Your task to perform on an android device: Clear all items from cart on amazon.com. Search for "jbl charge 4" on amazon.com, select the first entry, add it to the cart, then select checkout. Image 0: 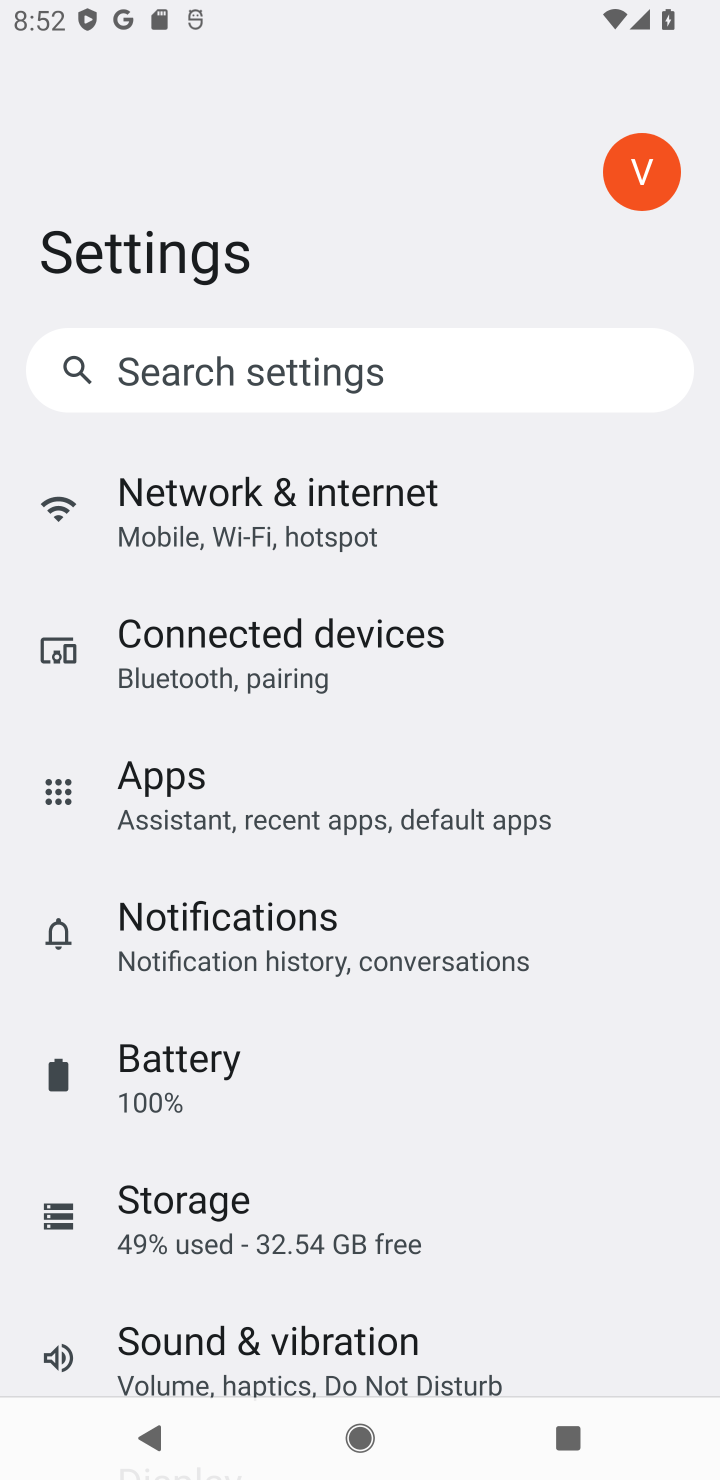
Step 0: press home button
Your task to perform on an android device: Clear all items from cart on amazon.com. Search for "jbl charge 4" on amazon.com, select the first entry, add it to the cart, then select checkout. Image 1: 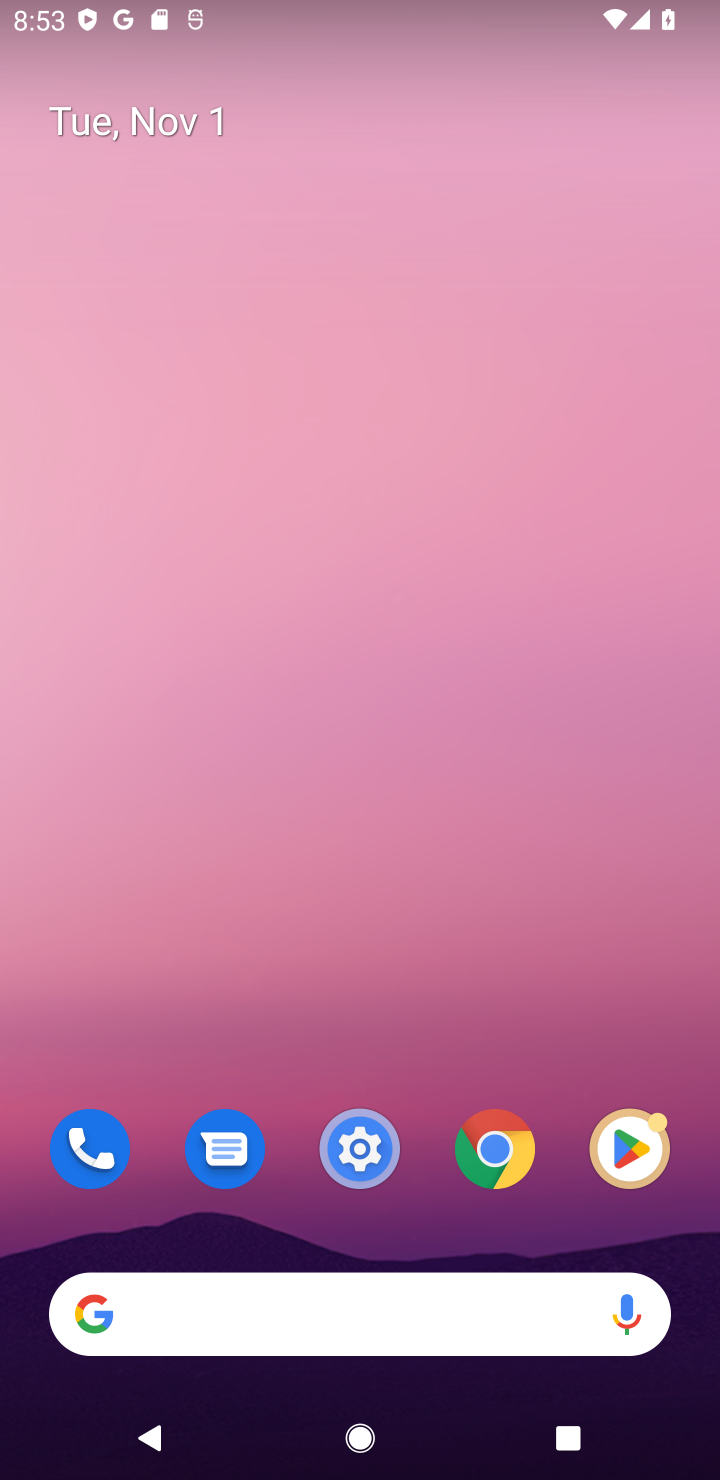
Step 1: click (139, 1310)
Your task to perform on an android device: Clear all items from cart on amazon.com. Search for "jbl charge 4" on amazon.com, select the first entry, add it to the cart, then select checkout. Image 2: 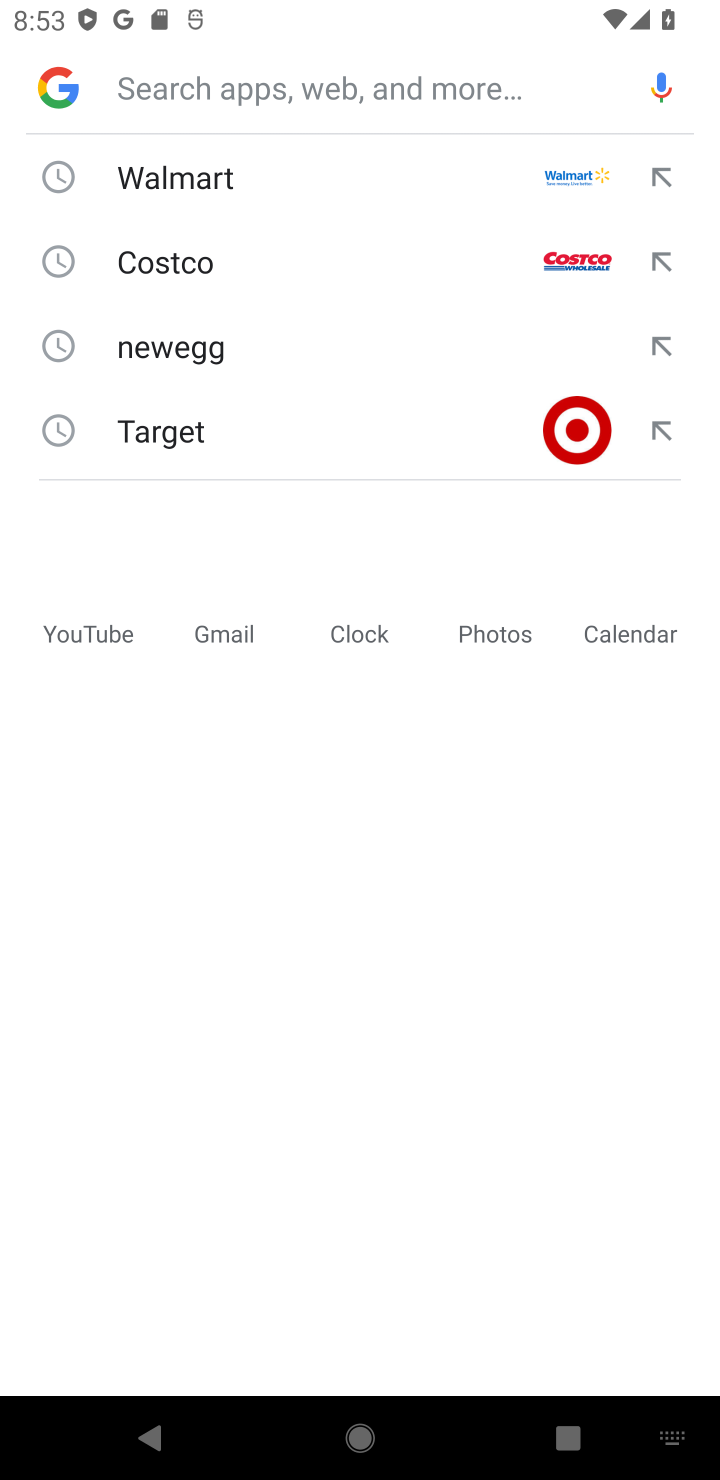
Step 2: type "amazon.com"
Your task to perform on an android device: Clear all items from cart on amazon.com. Search for "jbl charge 4" on amazon.com, select the first entry, add it to the cart, then select checkout. Image 3: 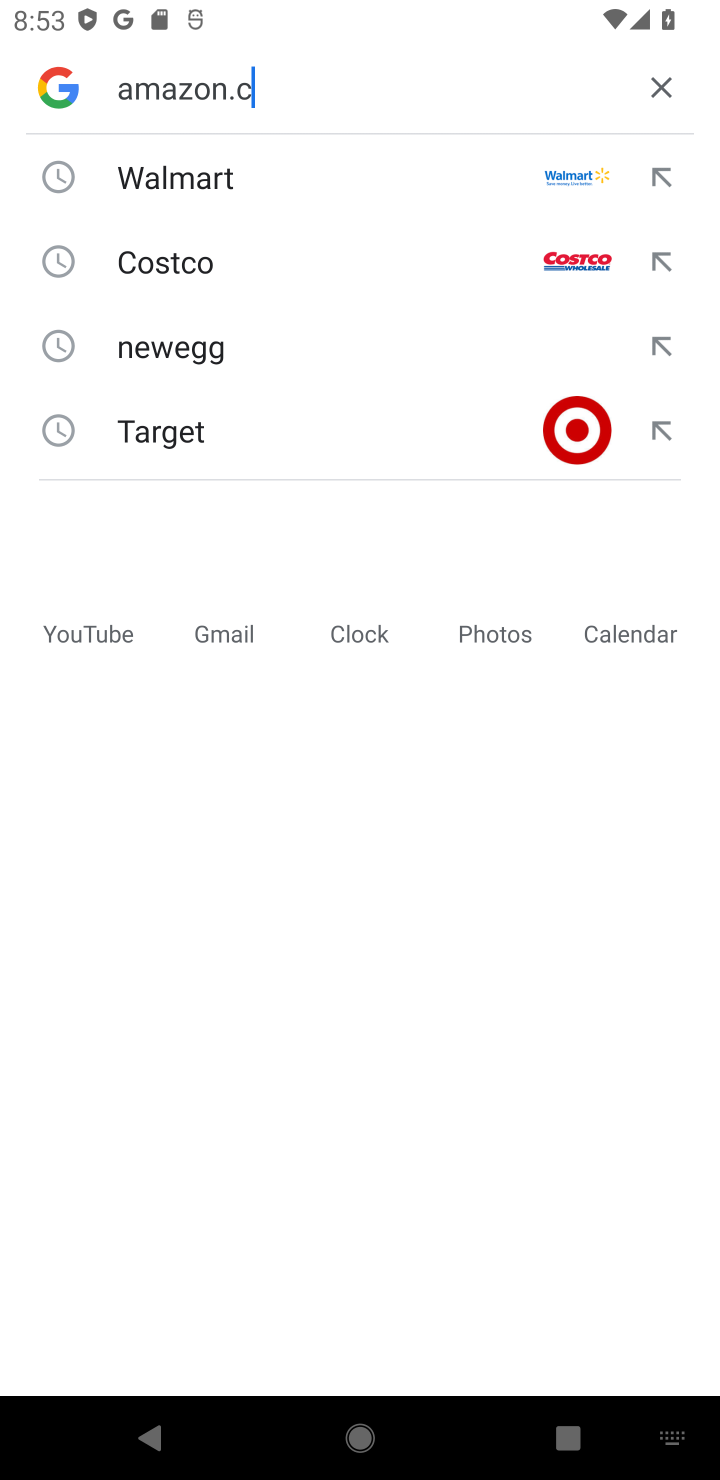
Step 3: press enter
Your task to perform on an android device: Clear all items from cart on amazon.com. Search for "jbl charge 4" on amazon.com, select the first entry, add it to the cart, then select checkout. Image 4: 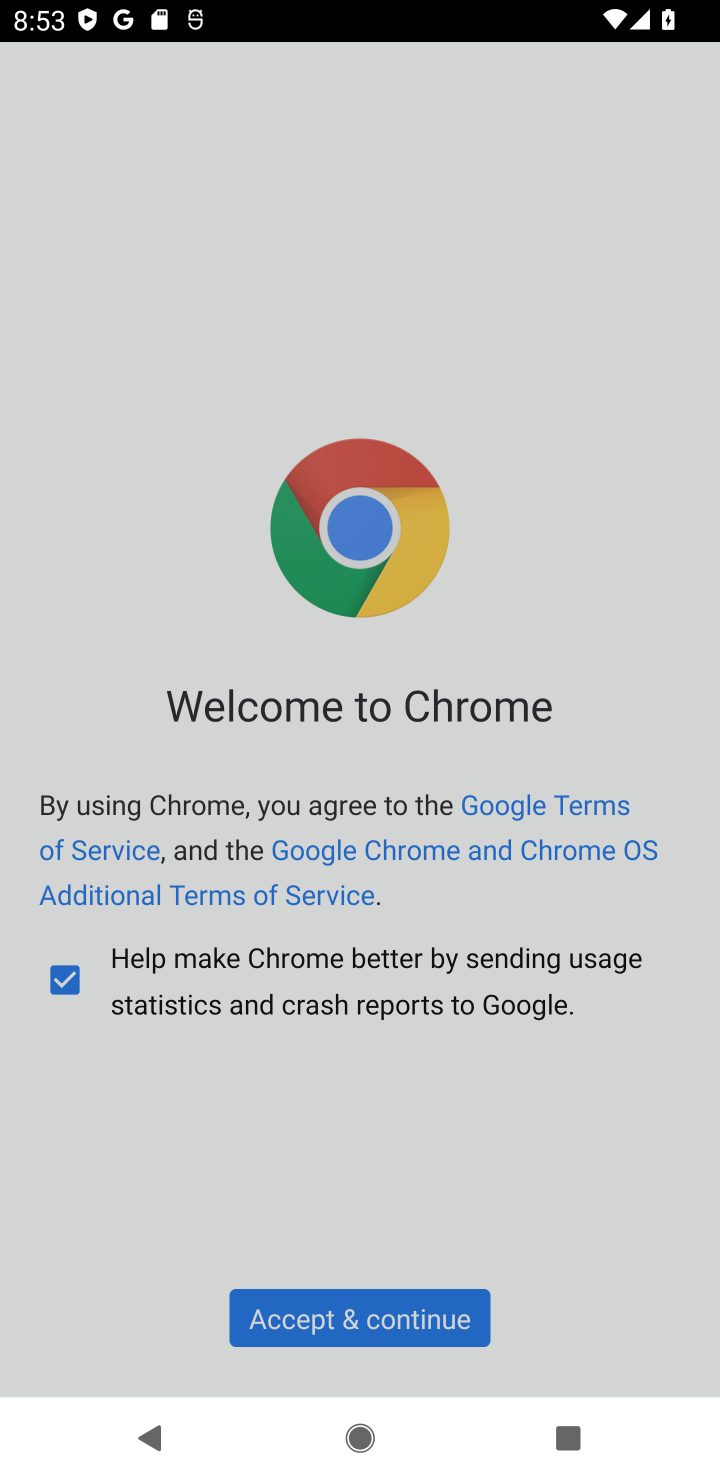
Step 4: click (287, 1321)
Your task to perform on an android device: Clear all items from cart on amazon.com. Search for "jbl charge 4" on amazon.com, select the first entry, add it to the cart, then select checkout. Image 5: 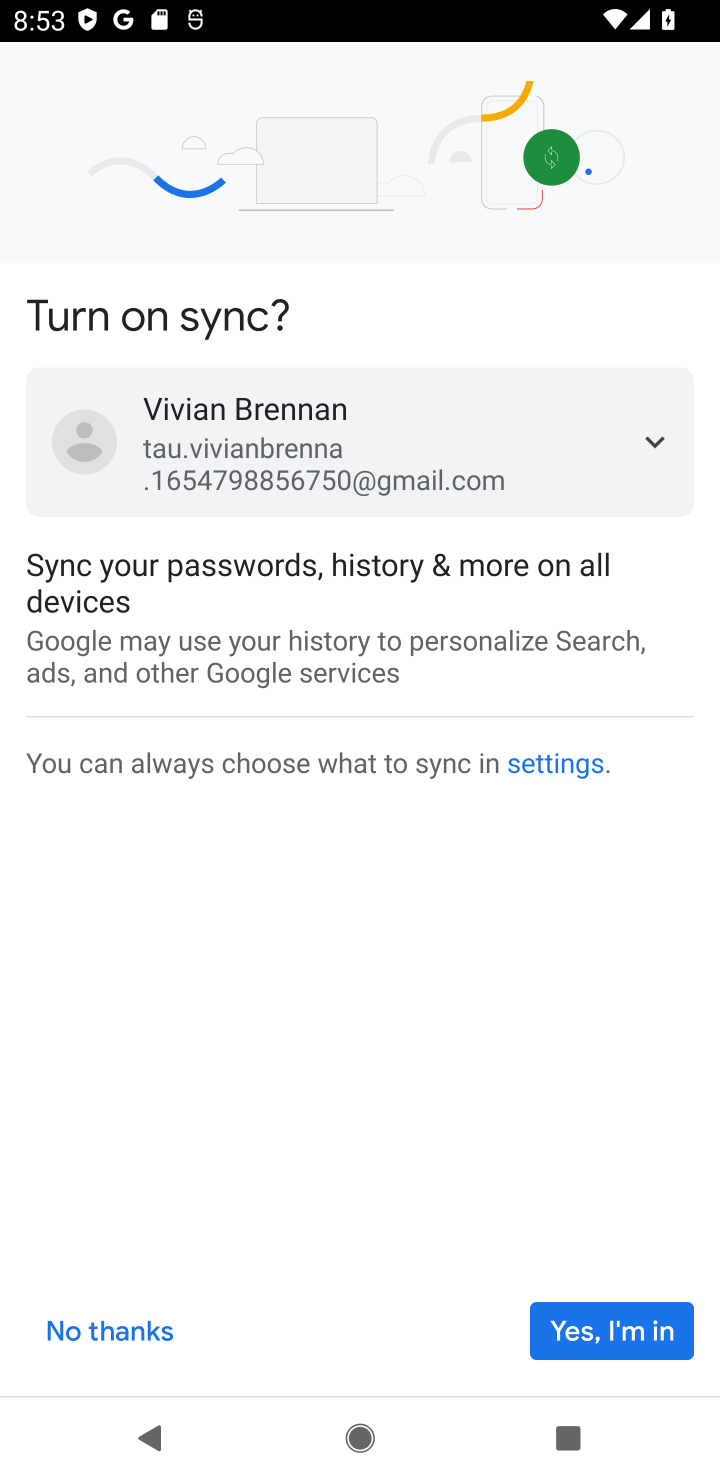
Step 5: click (597, 1330)
Your task to perform on an android device: Clear all items from cart on amazon.com. Search for "jbl charge 4" on amazon.com, select the first entry, add it to the cart, then select checkout. Image 6: 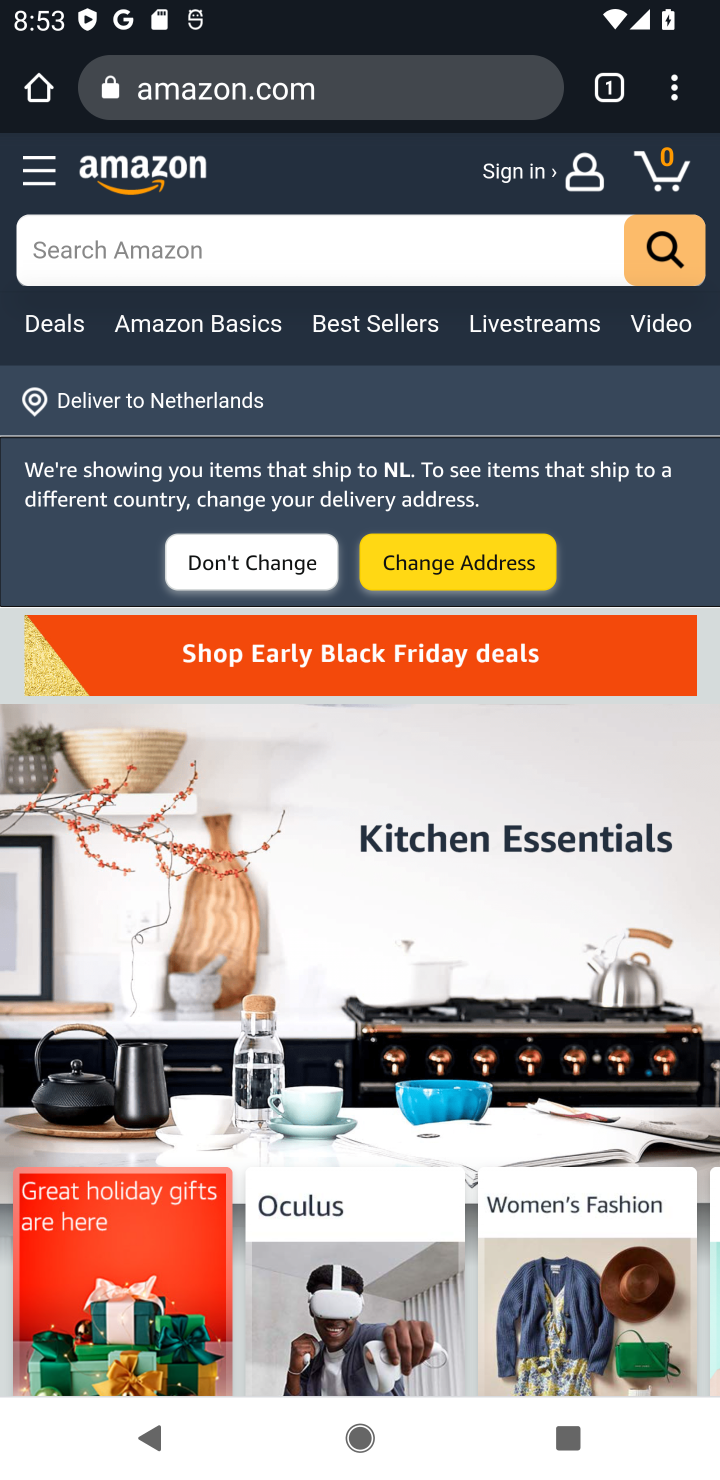
Step 6: click (670, 166)
Your task to perform on an android device: Clear all items from cart on amazon.com. Search for "jbl charge 4" on amazon.com, select the first entry, add it to the cart, then select checkout. Image 7: 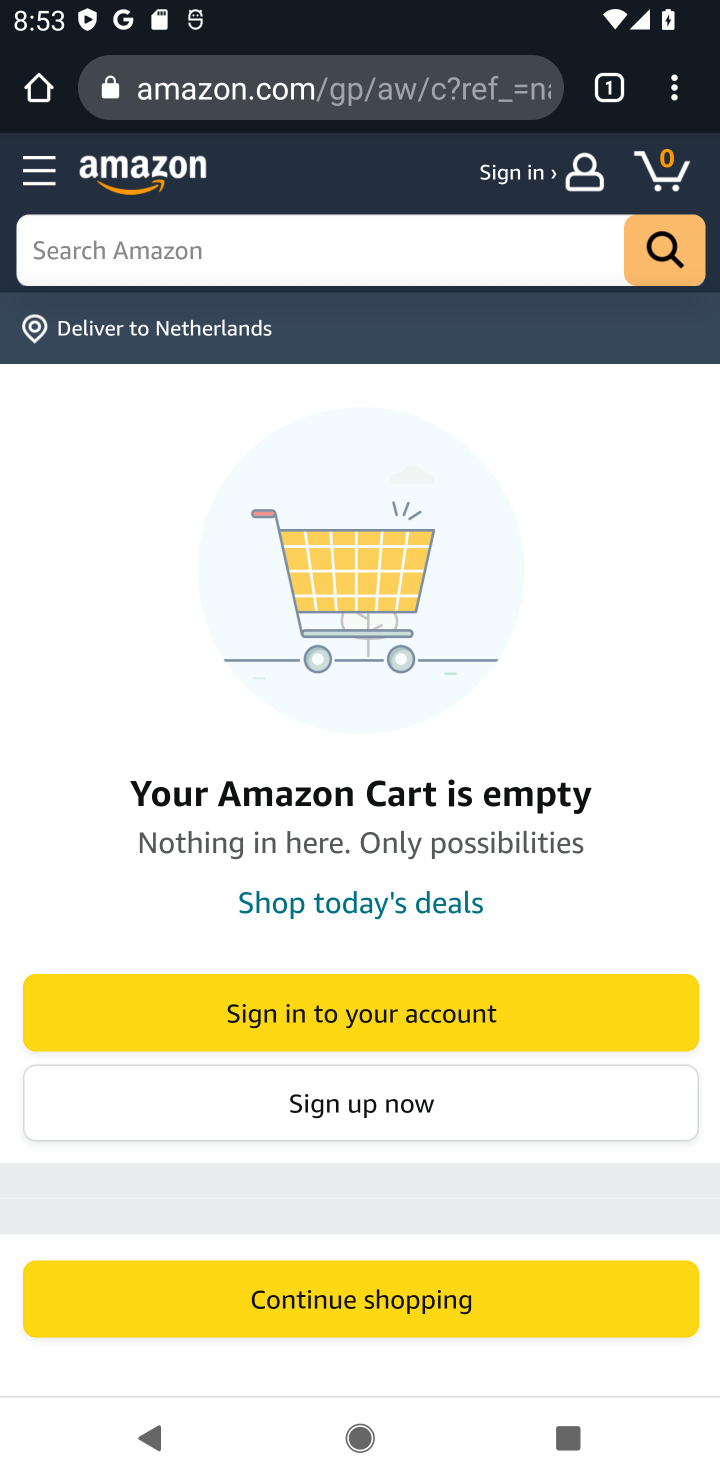
Step 7: click (292, 253)
Your task to perform on an android device: Clear all items from cart on amazon.com. Search for "jbl charge 4" on amazon.com, select the first entry, add it to the cart, then select checkout. Image 8: 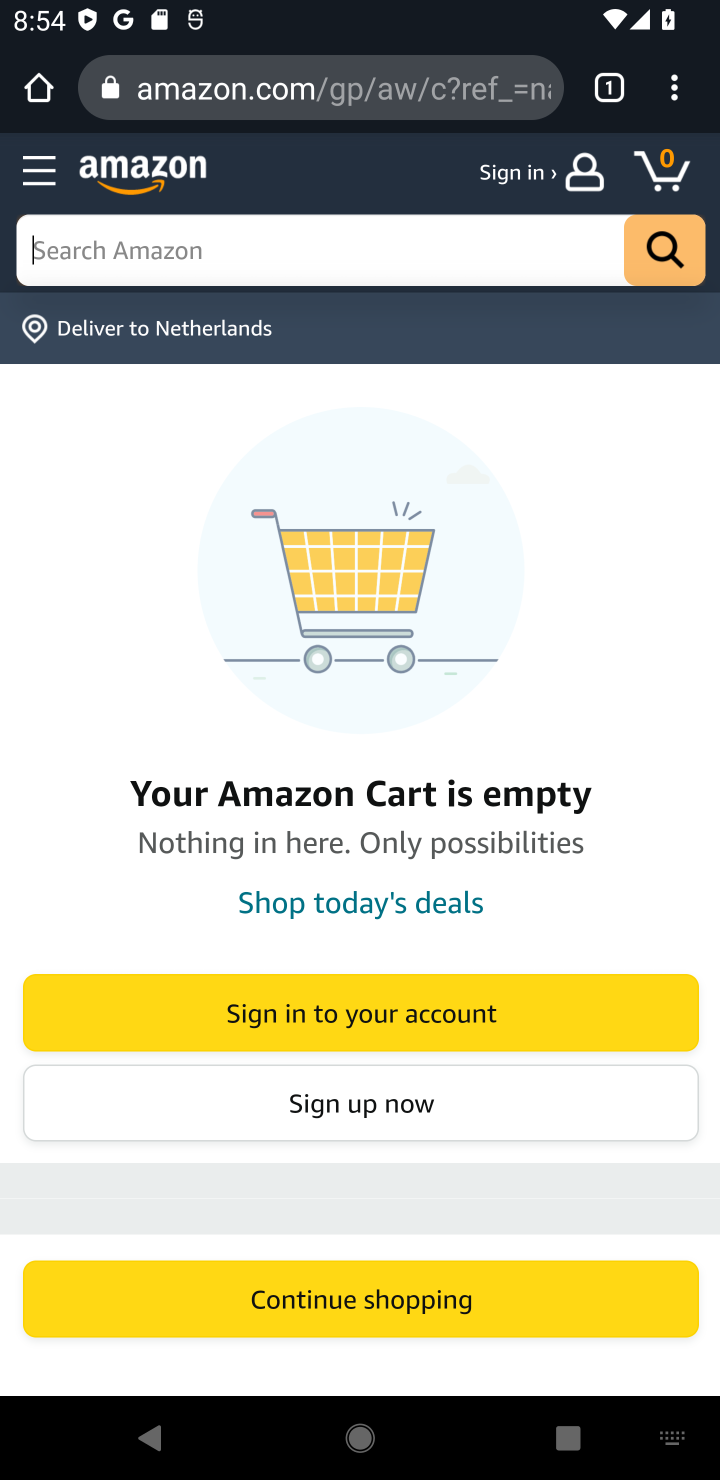
Step 8: type "jbl charge 4"
Your task to perform on an android device: Clear all items from cart on amazon.com. Search for "jbl charge 4" on amazon.com, select the first entry, add it to the cart, then select checkout. Image 9: 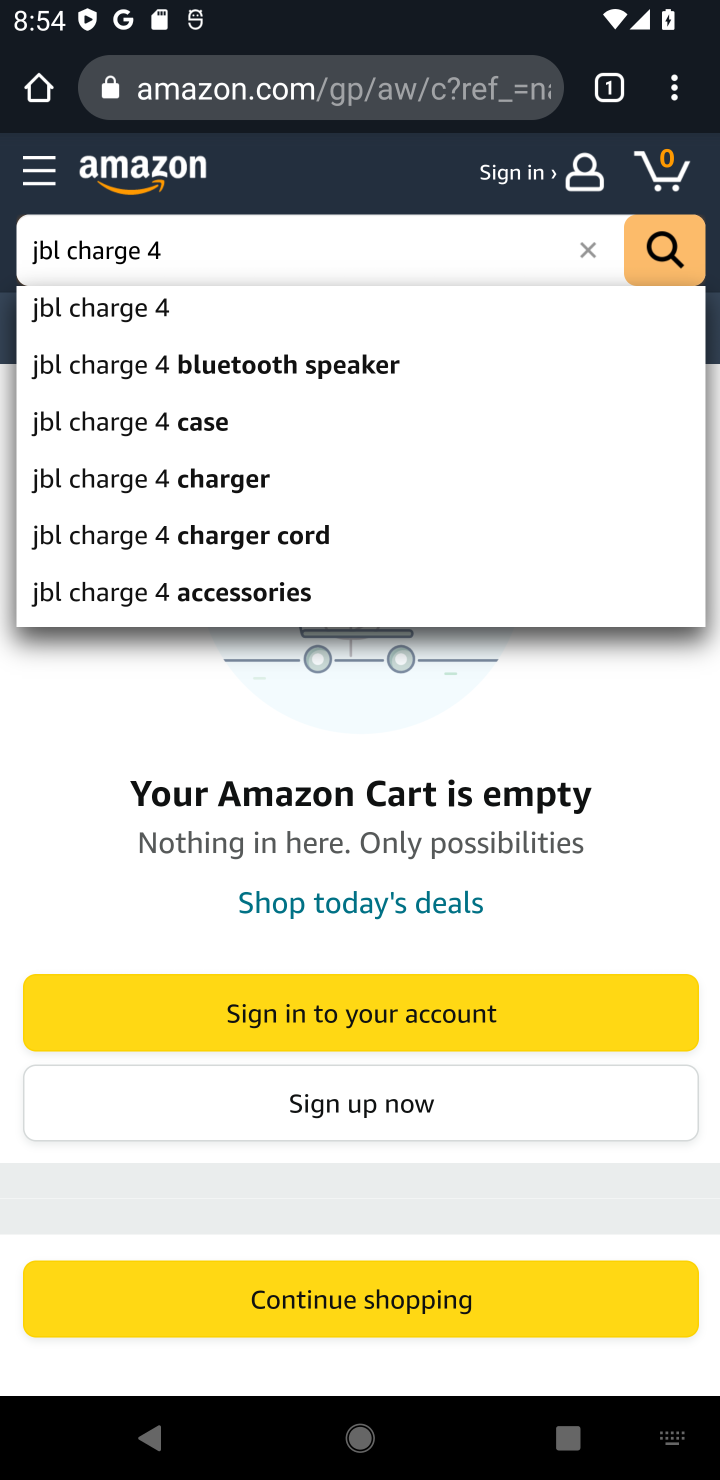
Step 9: click (657, 235)
Your task to perform on an android device: Clear all items from cart on amazon.com. Search for "jbl charge 4" on amazon.com, select the first entry, add it to the cart, then select checkout. Image 10: 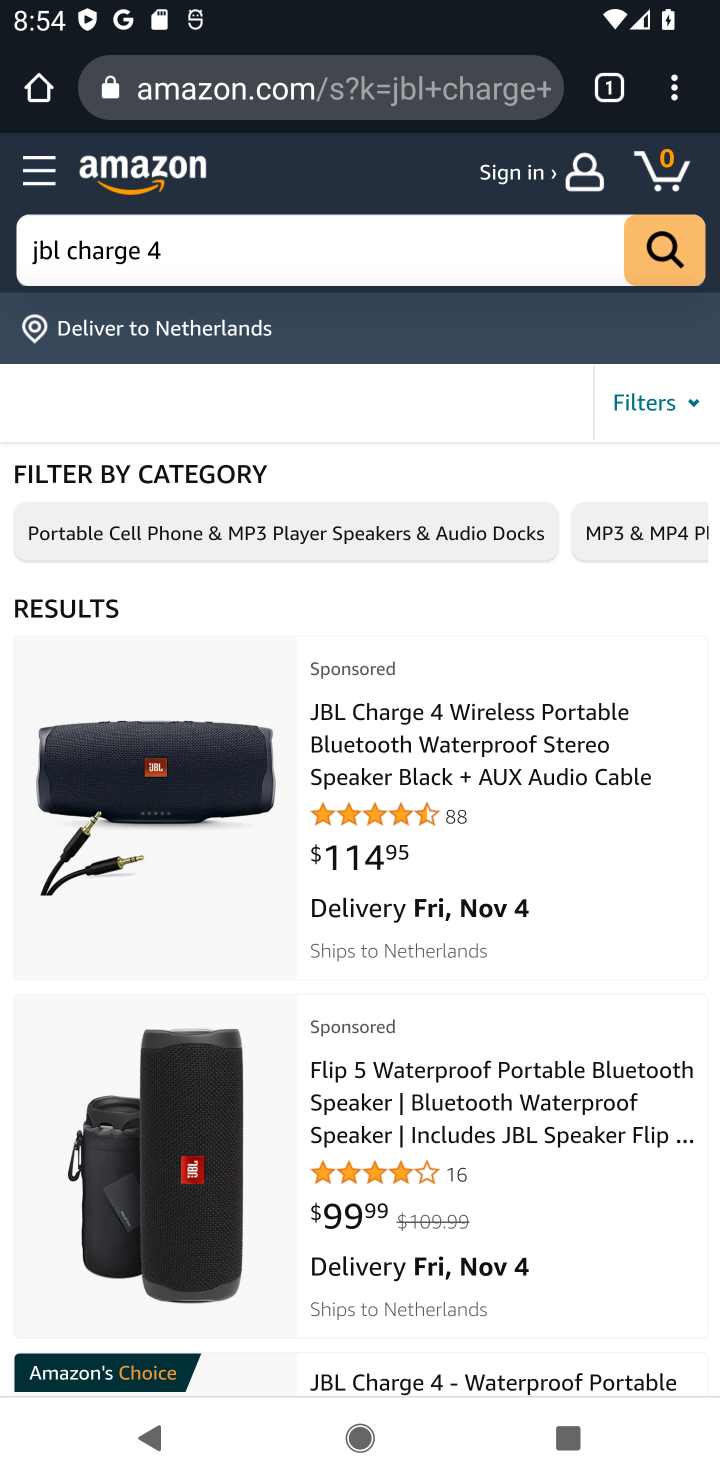
Step 10: click (445, 723)
Your task to perform on an android device: Clear all items from cart on amazon.com. Search for "jbl charge 4" on amazon.com, select the first entry, add it to the cart, then select checkout. Image 11: 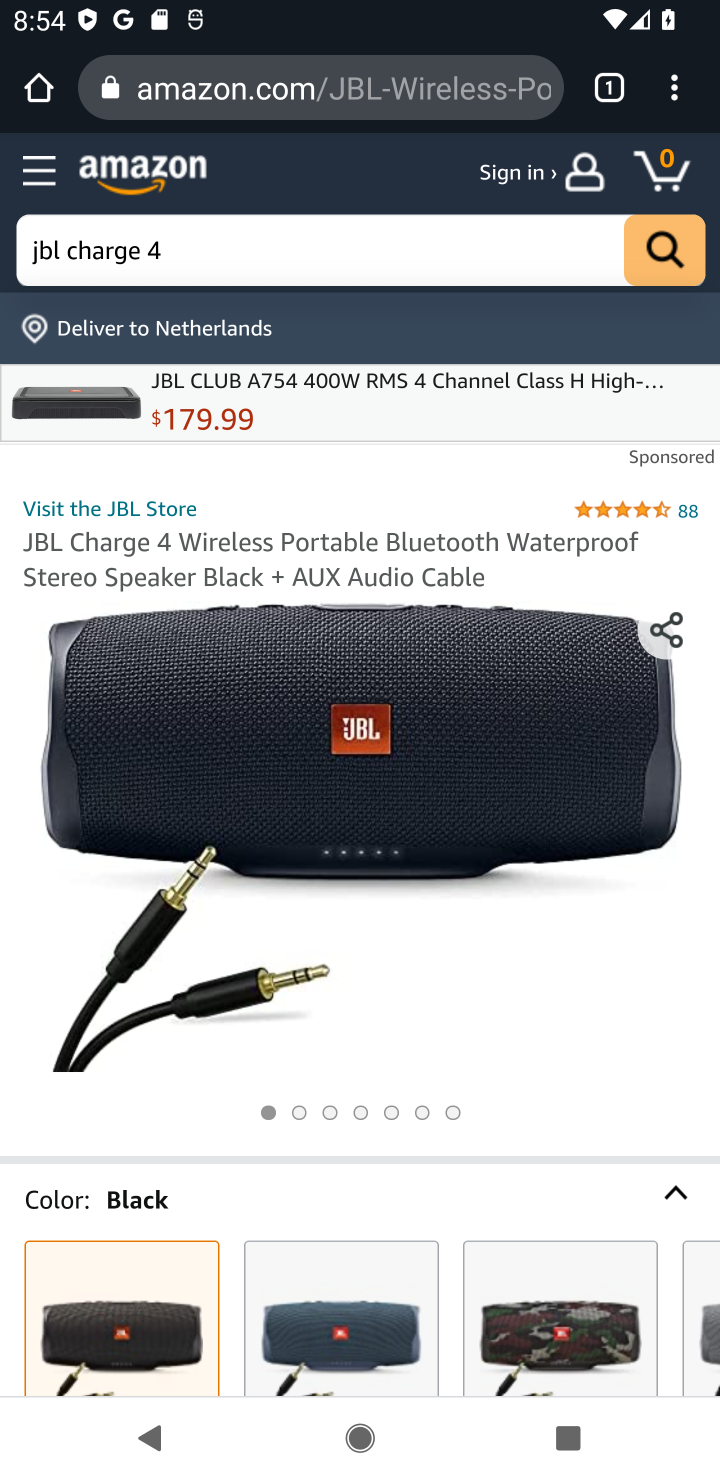
Step 11: drag from (479, 997) to (475, 527)
Your task to perform on an android device: Clear all items from cart on amazon.com. Search for "jbl charge 4" on amazon.com, select the first entry, add it to the cart, then select checkout. Image 12: 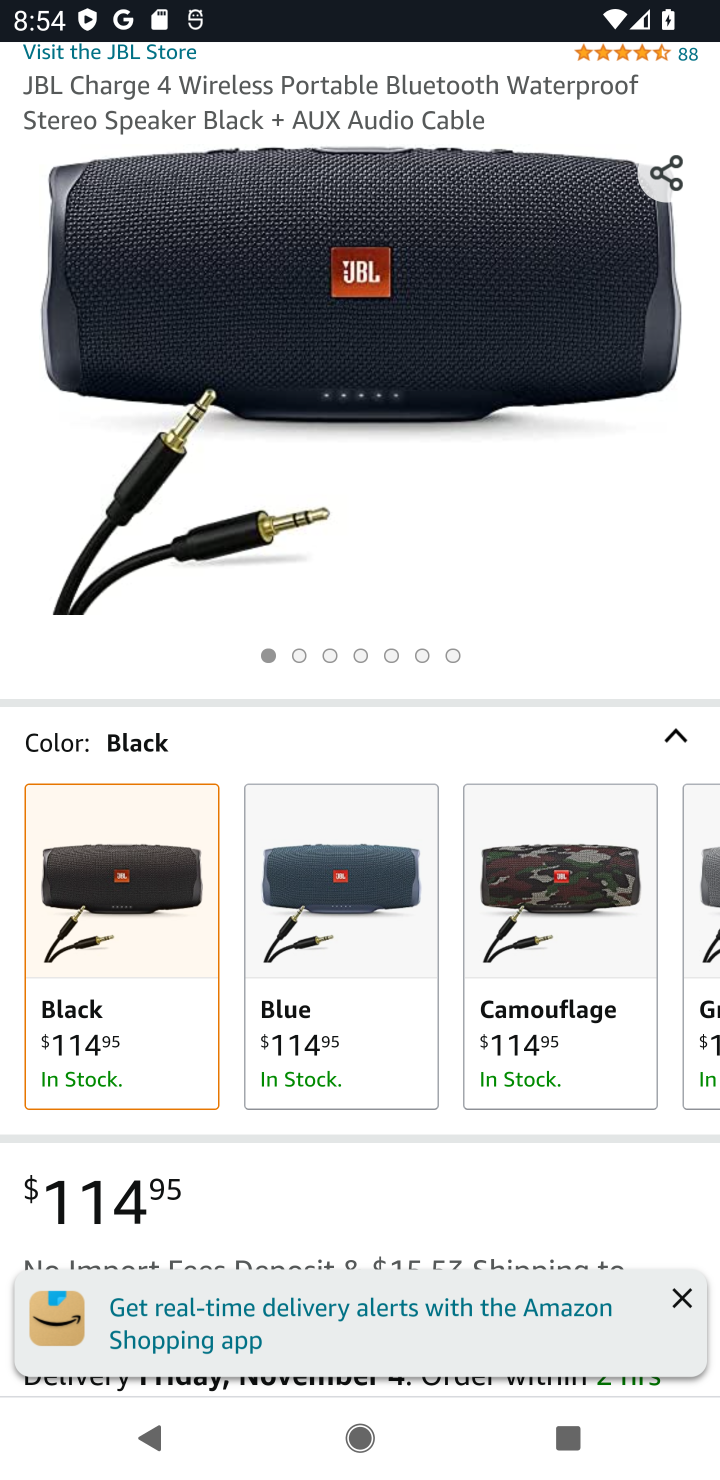
Step 12: drag from (399, 1071) to (405, 487)
Your task to perform on an android device: Clear all items from cart on amazon.com. Search for "jbl charge 4" on amazon.com, select the first entry, add it to the cart, then select checkout. Image 13: 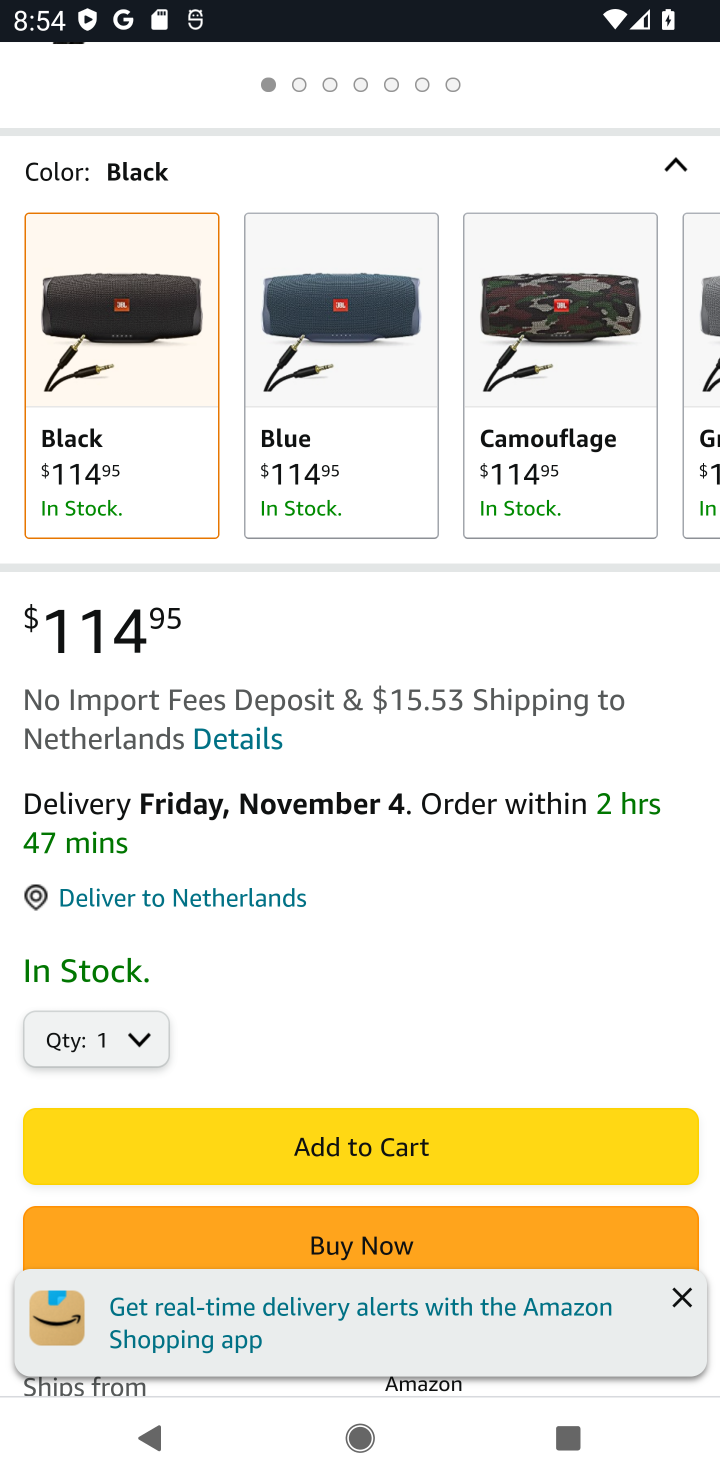
Step 13: click (343, 1133)
Your task to perform on an android device: Clear all items from cart on amazon.com. Search for "jbl charge 4" on amazon.com, select the first entry, add it to the cart, then select checkout. Image 14: 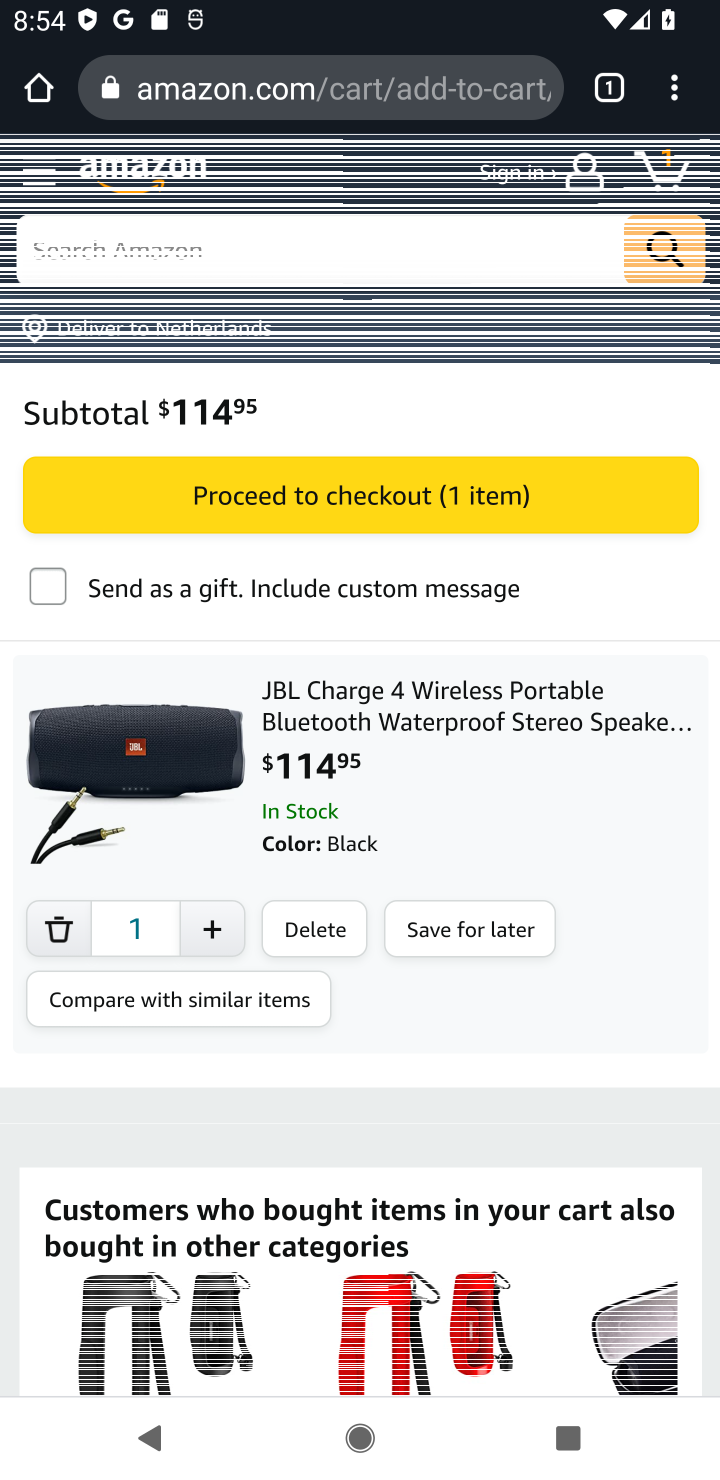
Step 14: click (341, 490)
Your task to perform on an android device: Clear all items from cart on amazon.com. Search for "jbl charge 4" on amazon.com, select the first entry, add it to the cart, then select checkout. Image 15: 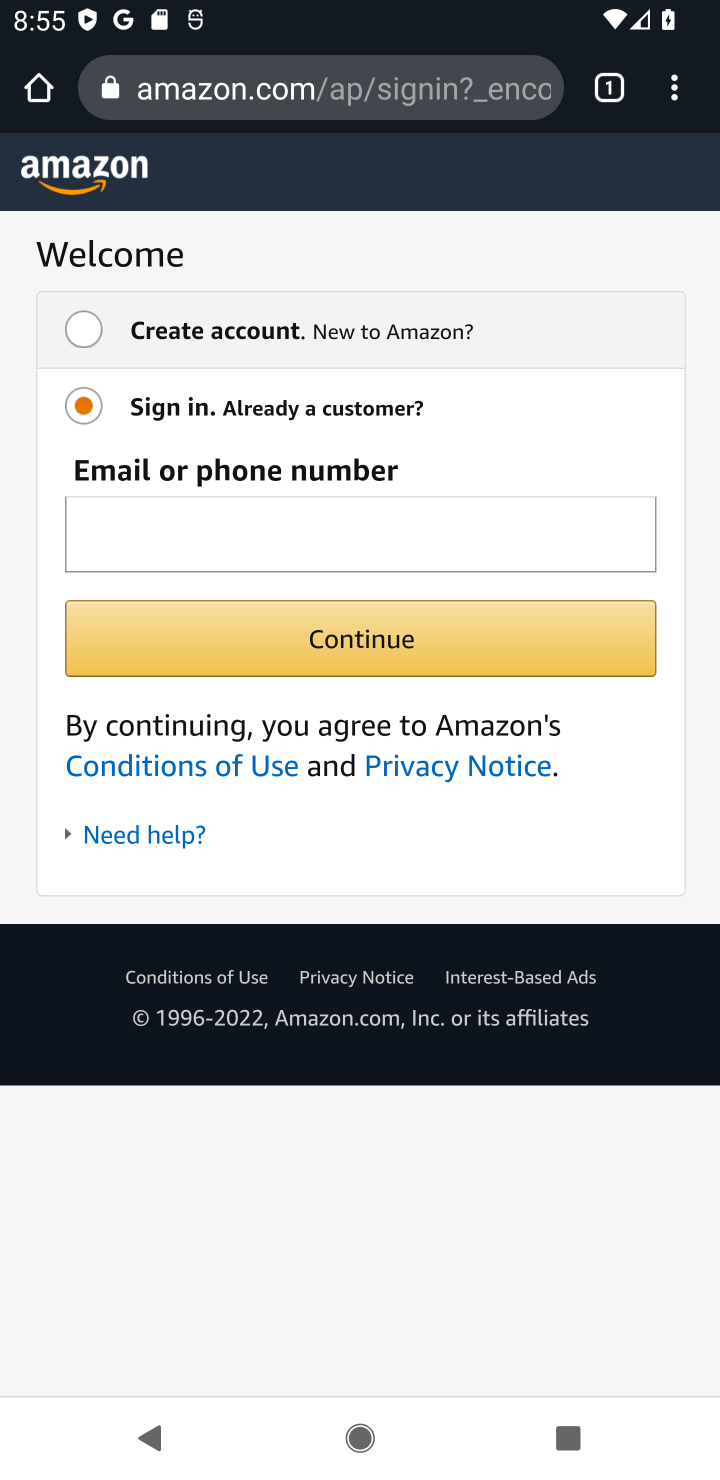
Step 15: task complete